Your task to perform on an android device: Go to Android settings Image 0: 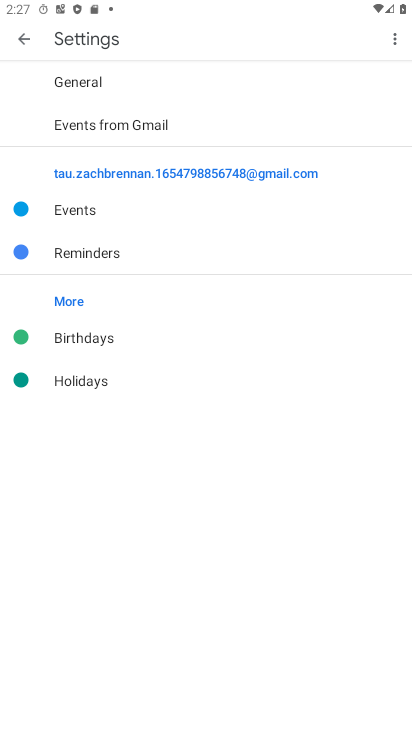
Step 0: press home button
Your task to perform on an android device: Go to Android settings Image 1: 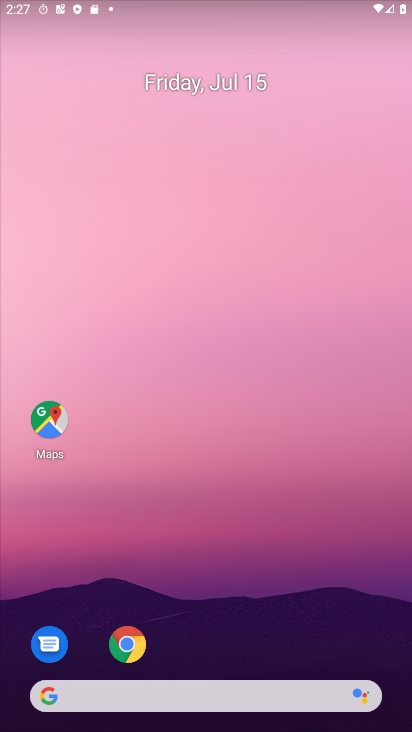
Step 1: drag from (393, 588) to (313, 73)
Your task to perform on an android device: Go to Android settings Image 2: 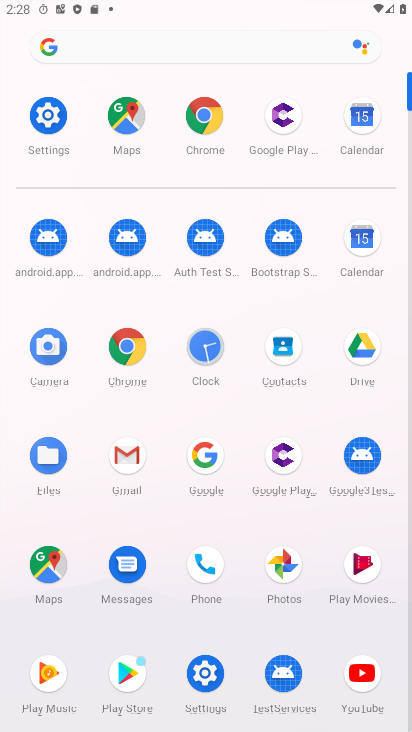
Step 2: click (204, 660)
Your task to perform on an android device: Go to Android settings Image 3: 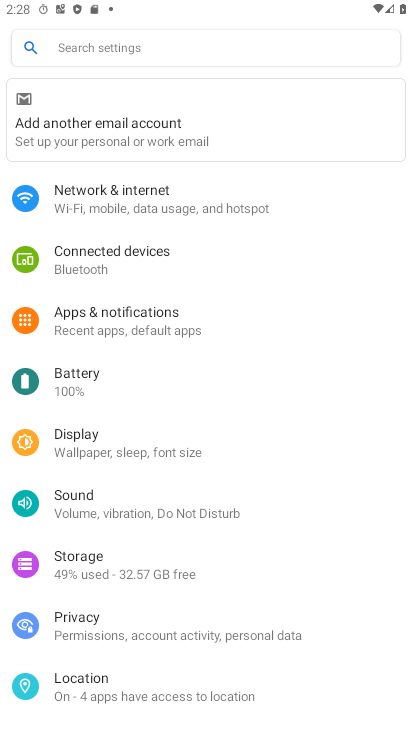
Step 3: task complete